Your task to perform on an android device: How do I get to the nearest Nordstrom? Image 0: 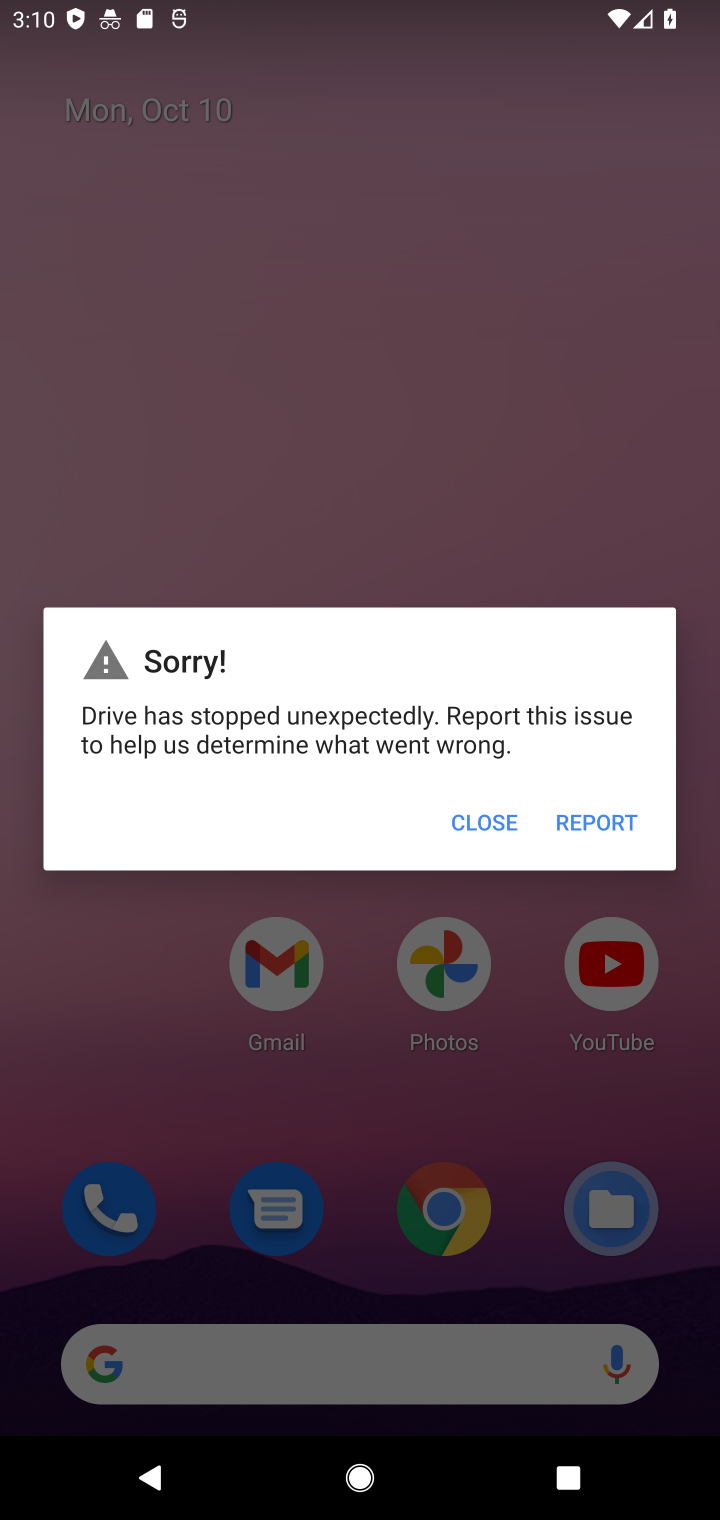
Step 0: press home button
Your task to perform on an android device: How do I get to the nearest Nordstrom? Image 1: 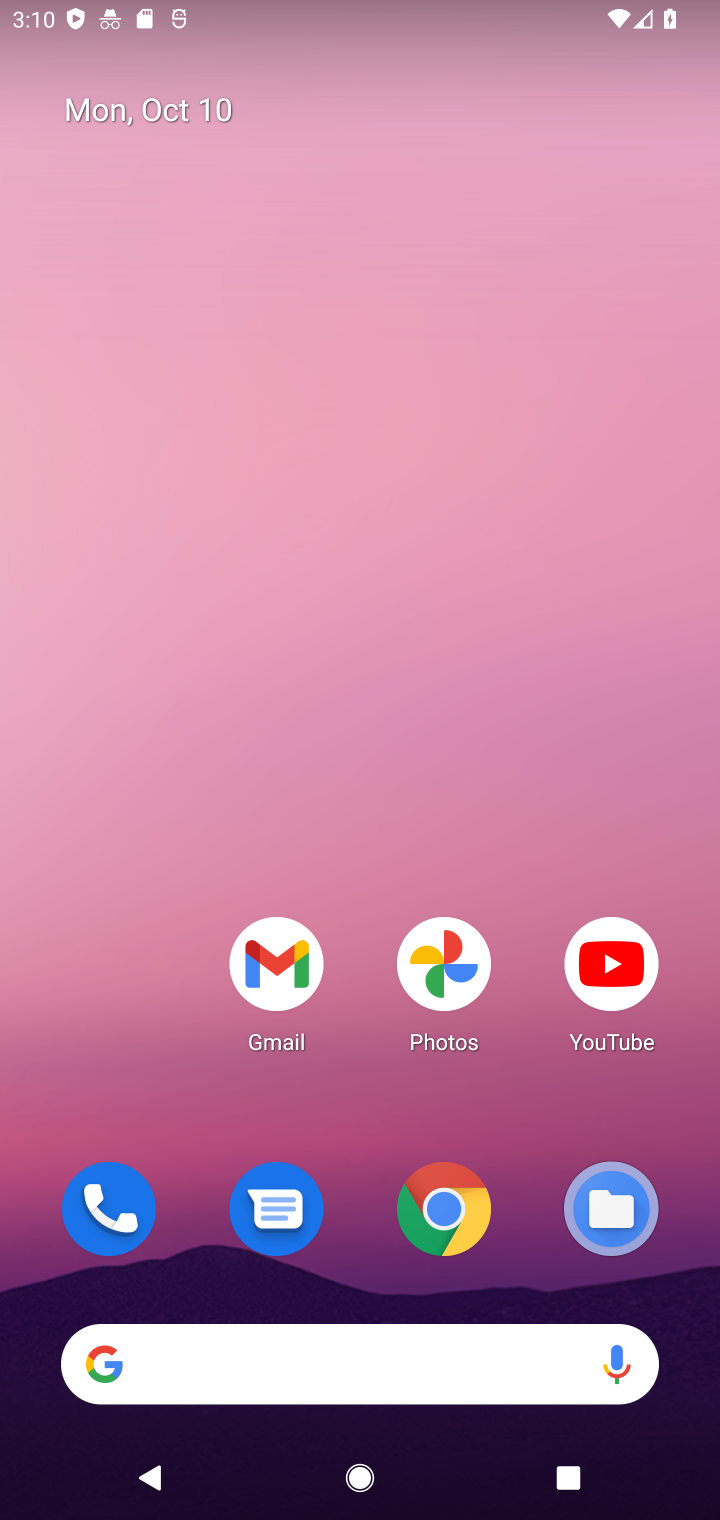
Step 1: click (427, 1237)
Your task to perform on an android device: How do I get to the nearest Nordstrom? Image 2: 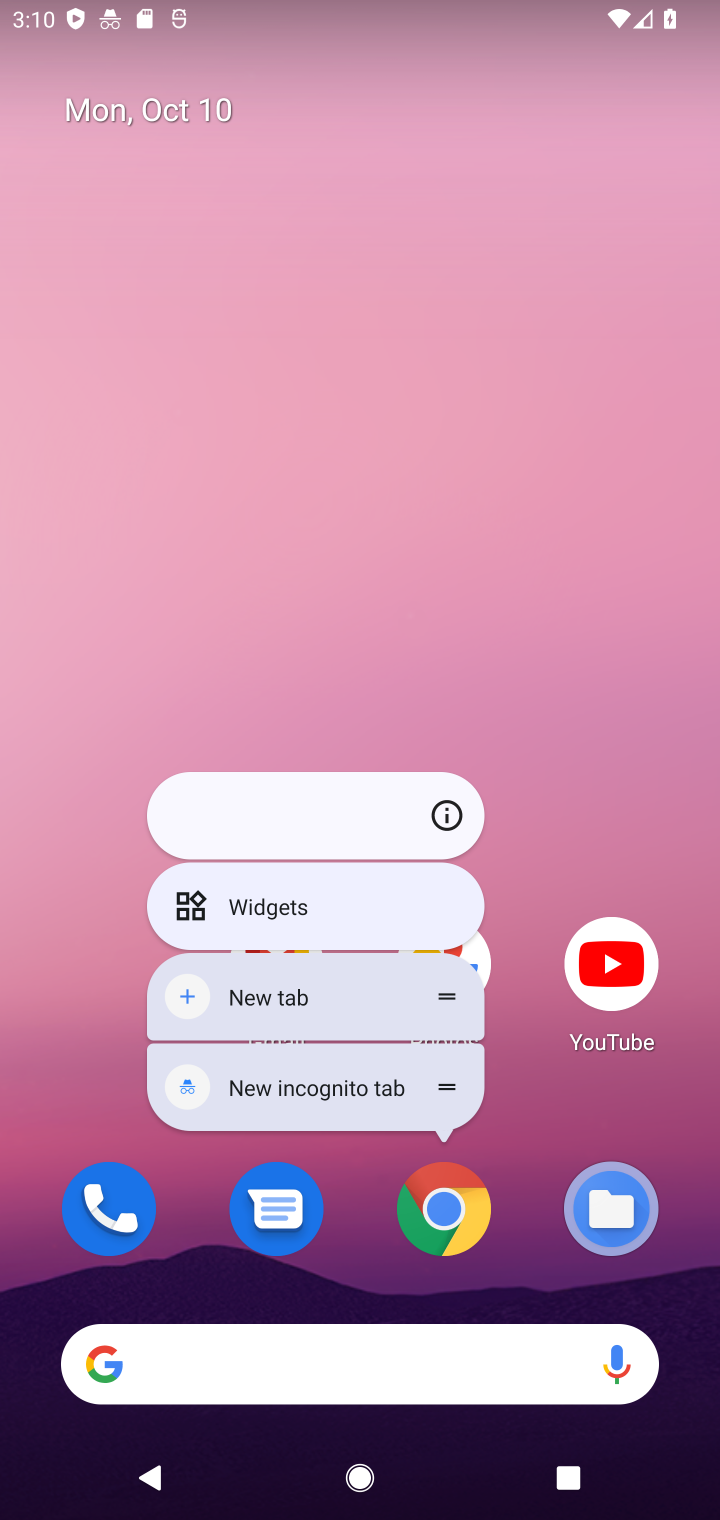
Step 2: click (464, 1227)
Your task to perform on an android device: How do I get to the nearest Nordstrom? Image 3: 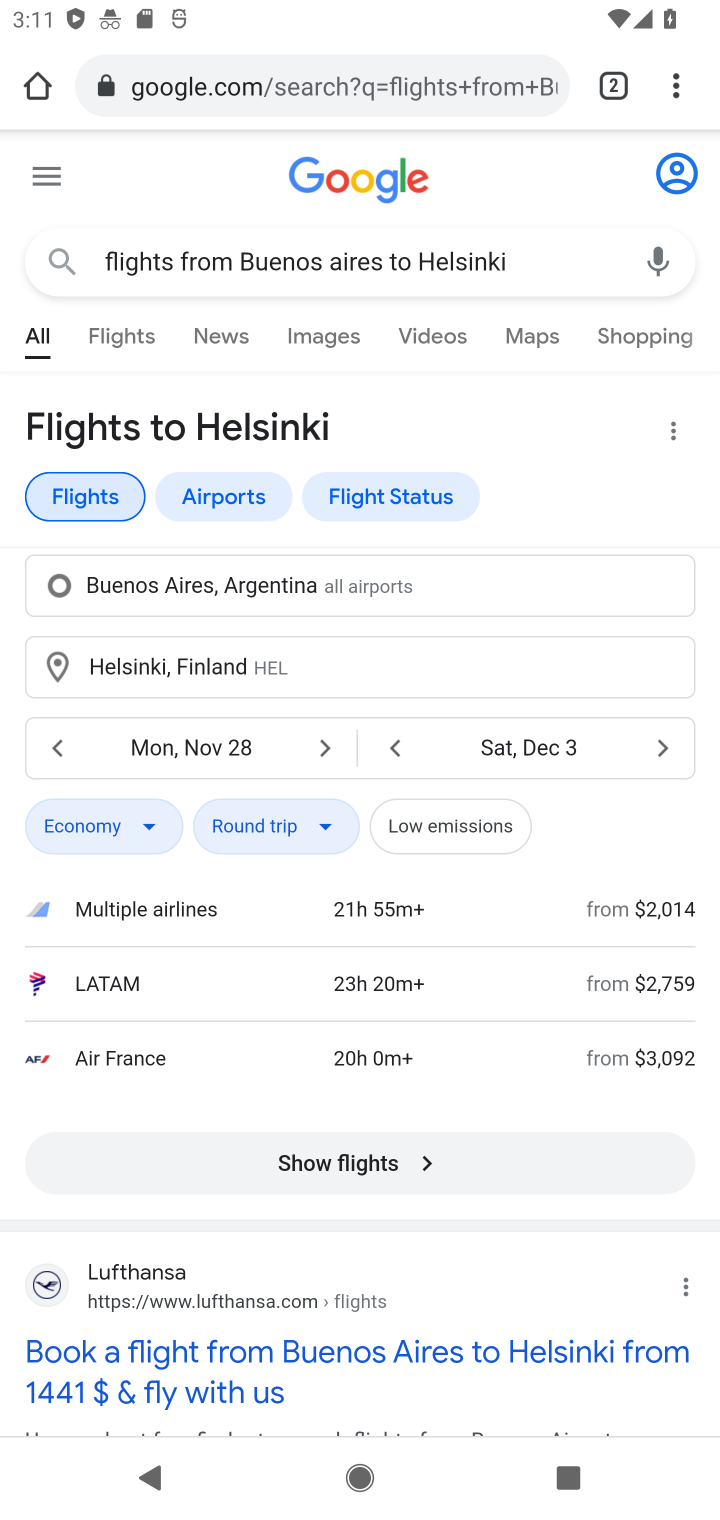
Step 3: click (528, 247)
Your task to perform on an android device: How do I get to the nearest Nordstrom? Image 4: 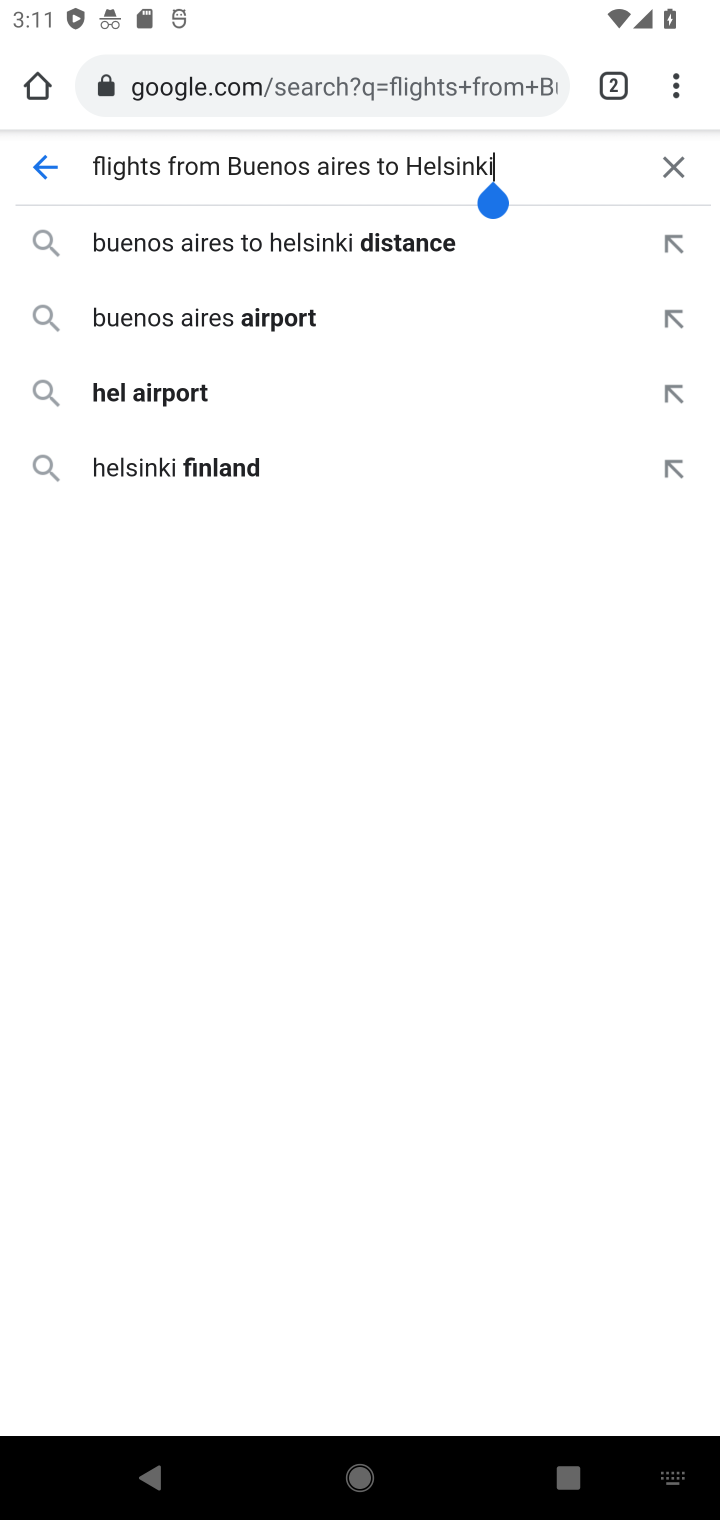
Step 4: click (671, 172)
Your task to perform on an android device: How do I get to the nearest Nordstrom? Image 5: 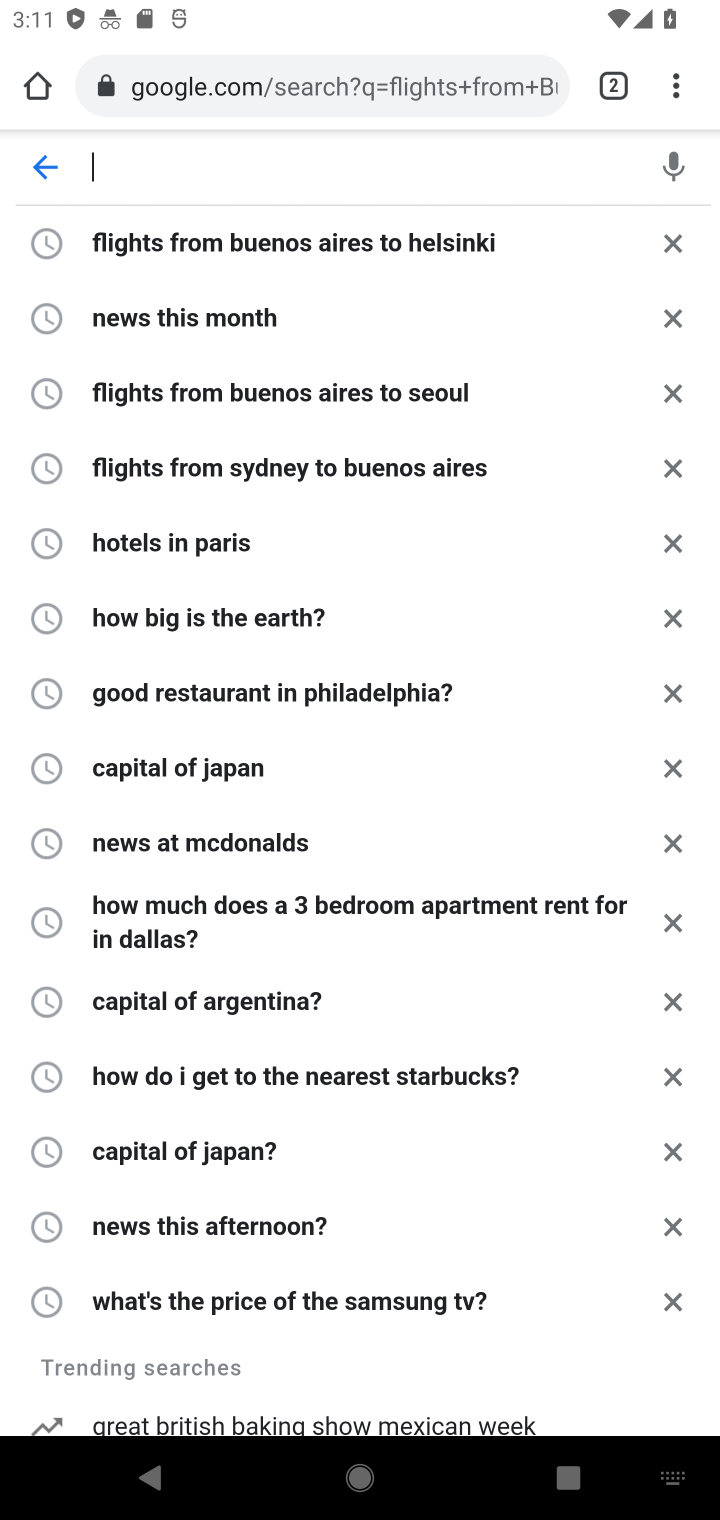
Step 5: type "How do I get to the nearest Nordstrom?"
Your task to perform on an android device: How do I get to the nearest Nordstrom? Image 6: 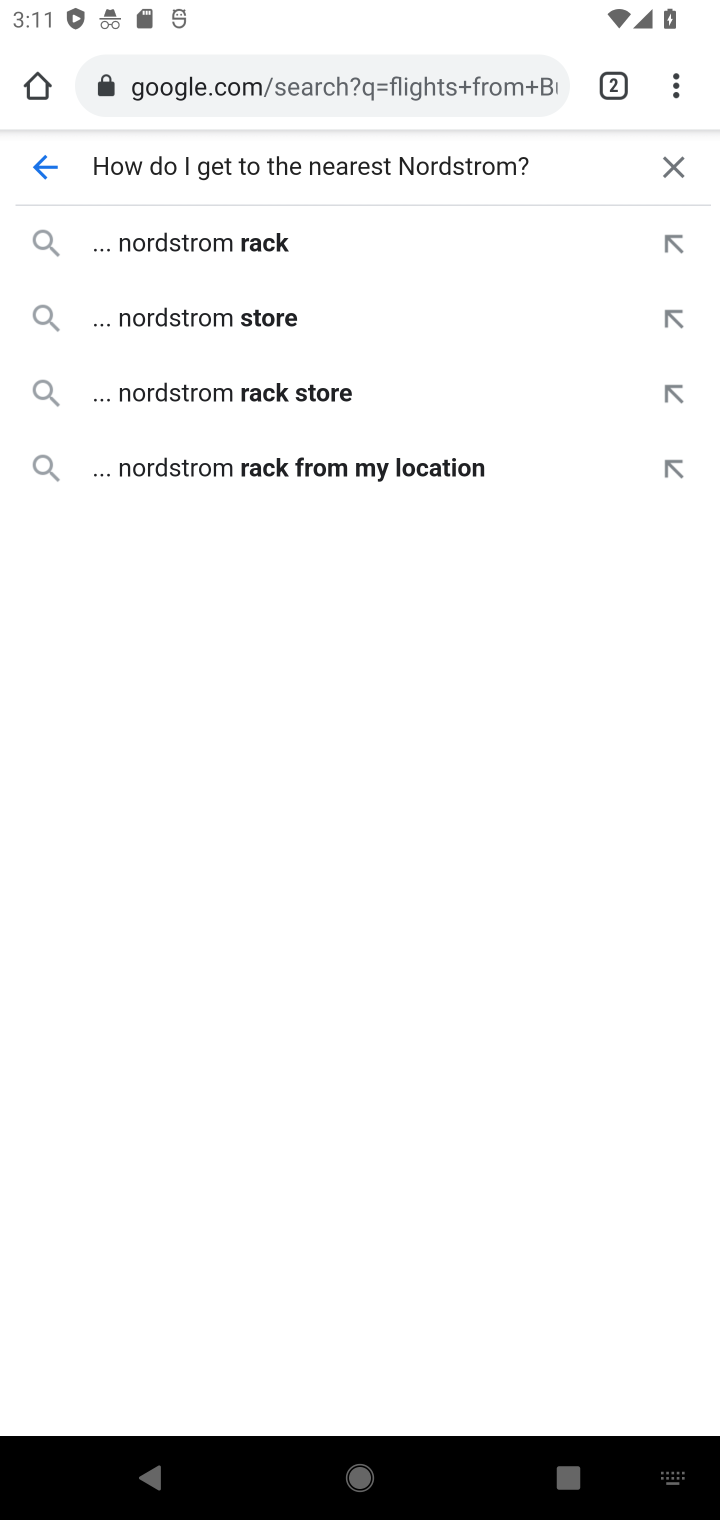
Step 6: press enter
Your task to perform on an android device: How do I get to the nearest Nordstrom? Image 7: 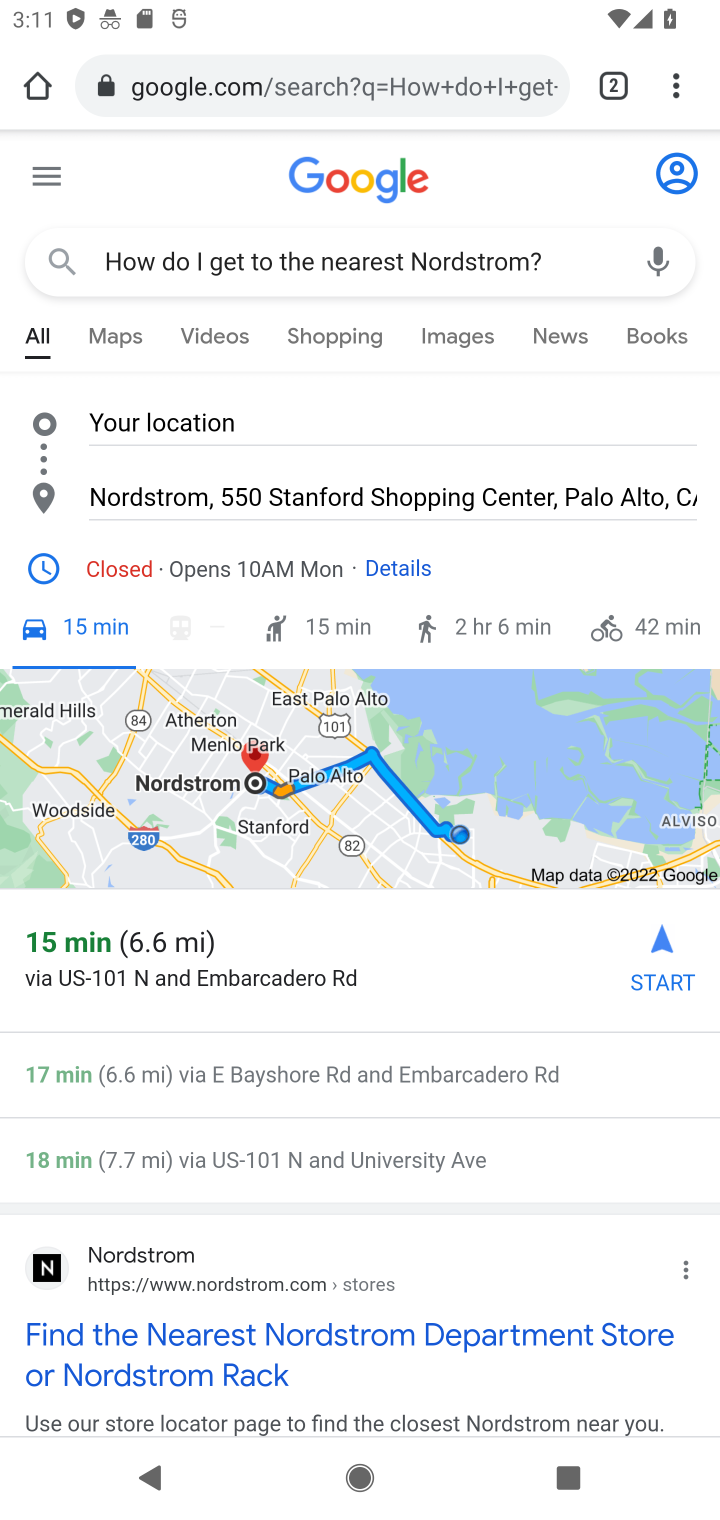
Step 7: task complete